Your task to perform on an android device: Open my contact list Image 0: 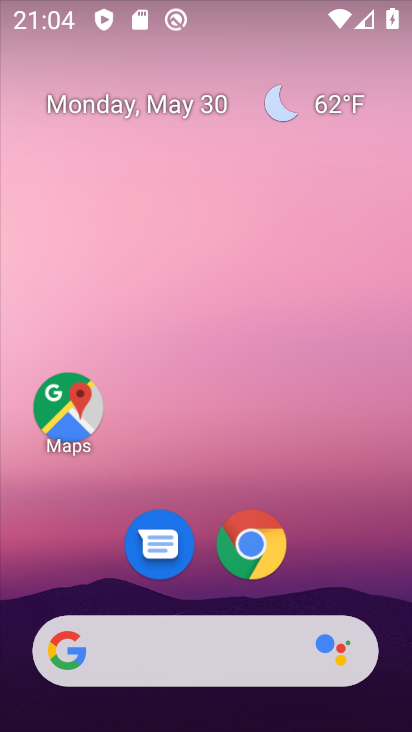
Step 0: drag from (346, 566) to (288, 122)
Your task to perform on an android device: Open my contact list Image 1: 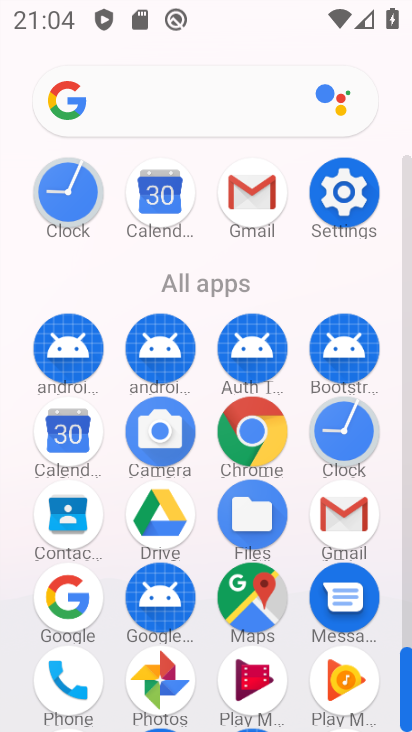
Step 1: click (67, 514)
Your task to perform on an android device: Open my contact list Image 2: 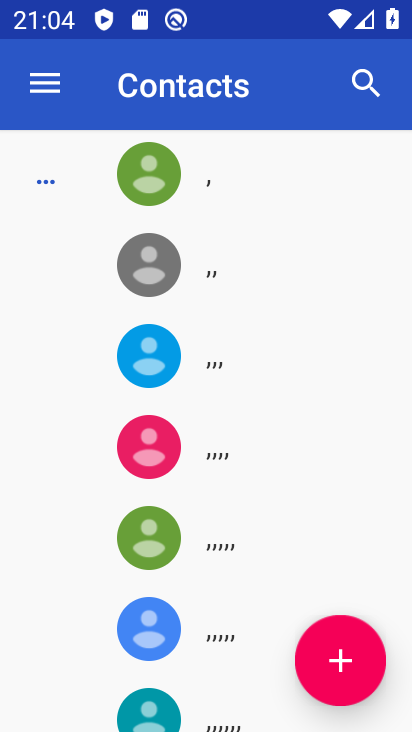
Step 2: task complete